Your task to perform on an android device: turn off translation in the chrome app Image 0: 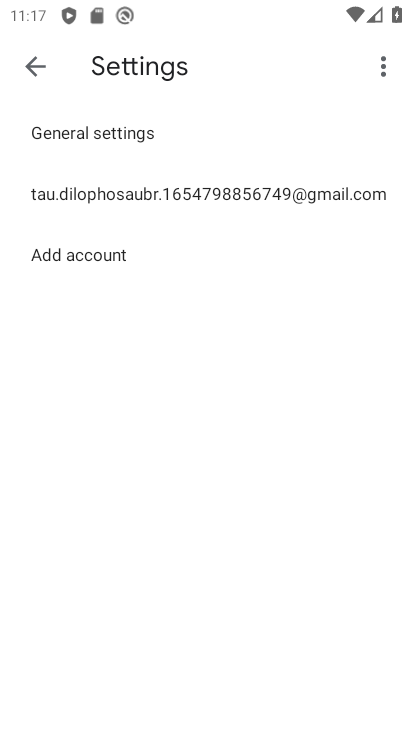
Step 0: press home button
Your task to perform on an android device: turn off translation in the chrome app Image 1: 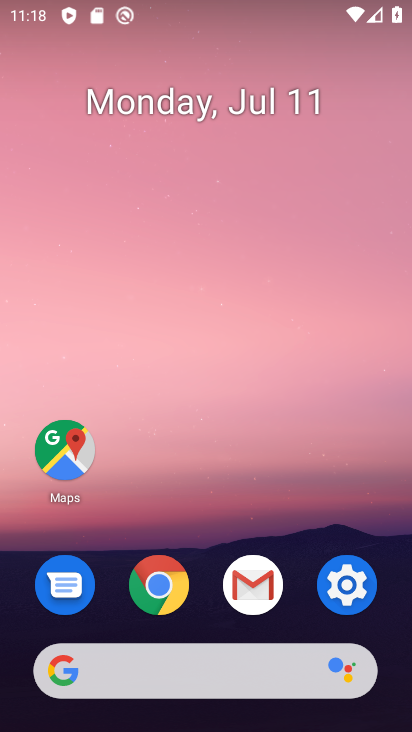
Step 1: click (159, 564)
Your task to perform on an android device: turn off translation in the chrome app Image 2: 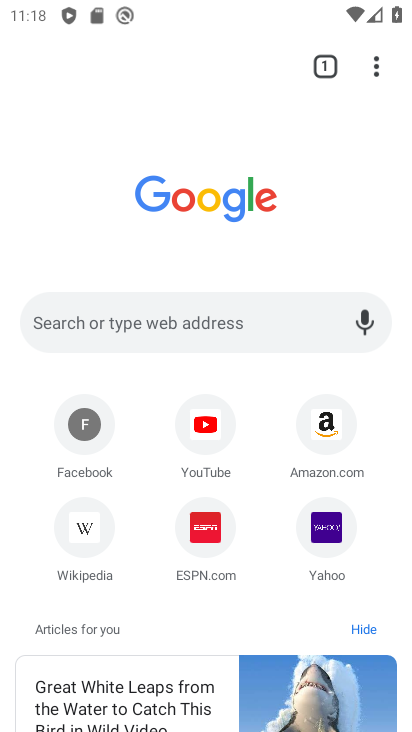
Step 2: click (380, 69)
Your task to perform on an android device: turn off translation in the chrome app Image 3: 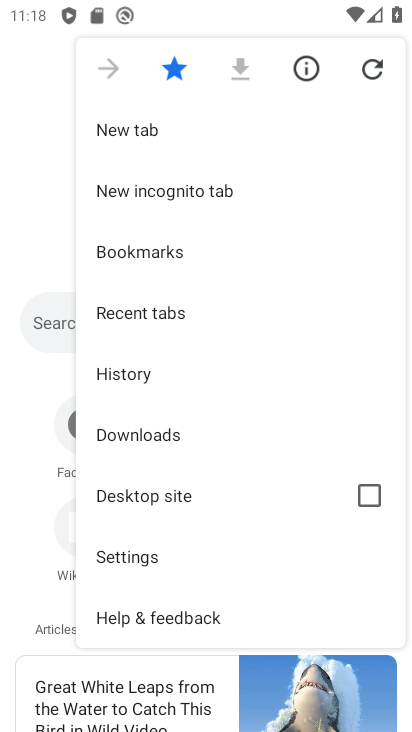
Step 3: click (109, 549)
Your task to perform on an android device: turn off translation in the chrome app Image 4: 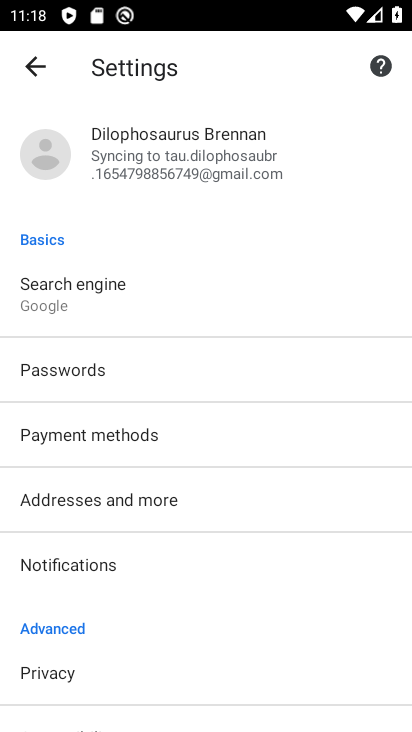
Step 4: drag from (117, 607) to (147, 347)
Your task to perform on an android device: turn off translation in the chrome app Image 5: 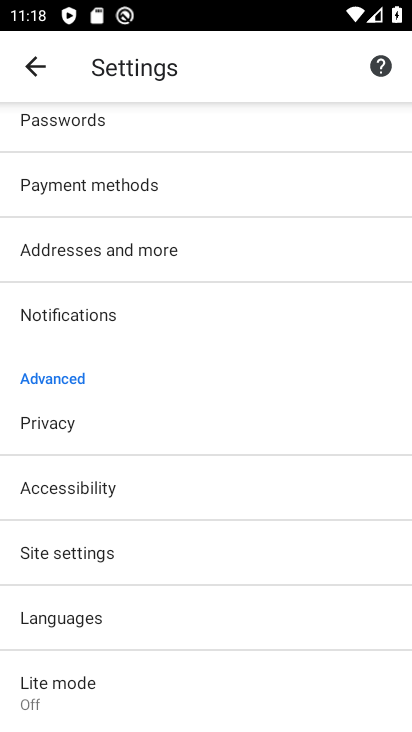
Step 5: click (89, 611)
Your task to perform on an android device: turn off translation in the chrome app Image 6: 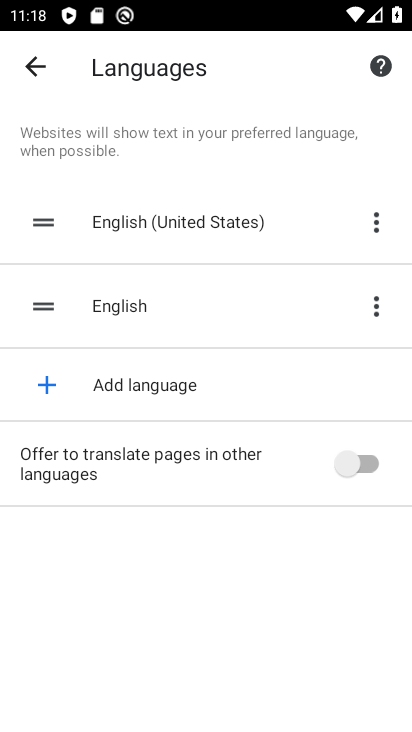
Step 6: click (373, 442)
Your task to perform on an android device: turn off translation in the chrome app Image 7: 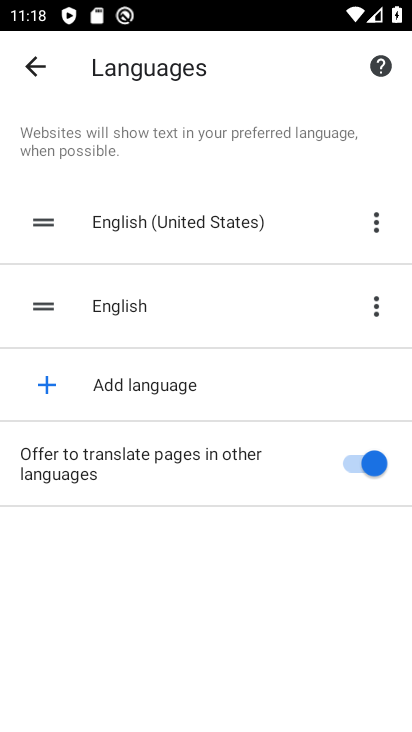
Step 7: click (365, 451)
Your task to perform on an android device: turn off translation in the chrome app Image 8: 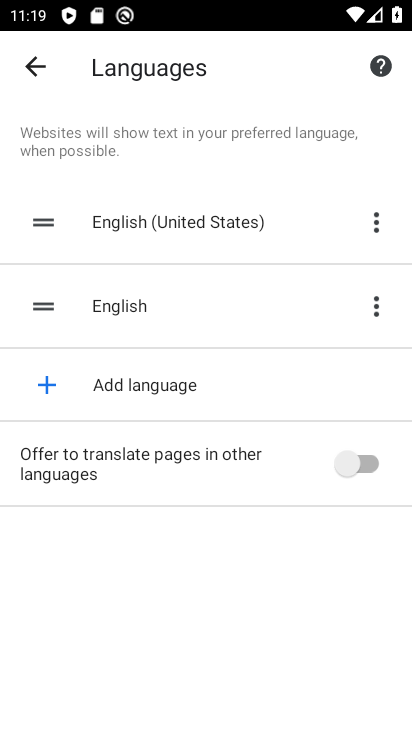
Step 8: task complete